Your task to perform on an android device: open device folders in google photos Image 0: 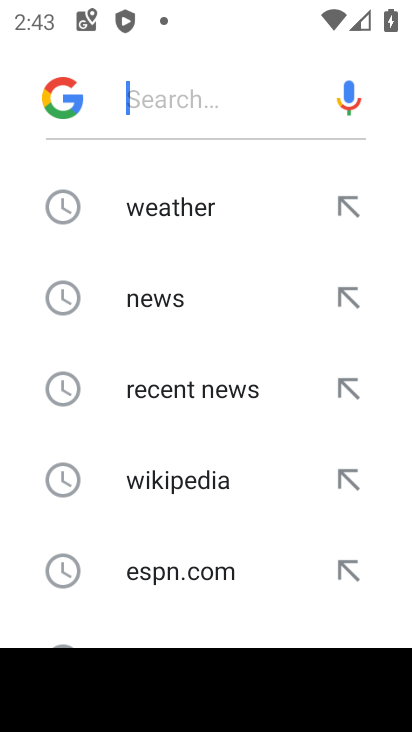
Step 0: press home button
Your task to perform on an android device: open device folders in google photos Image 1: 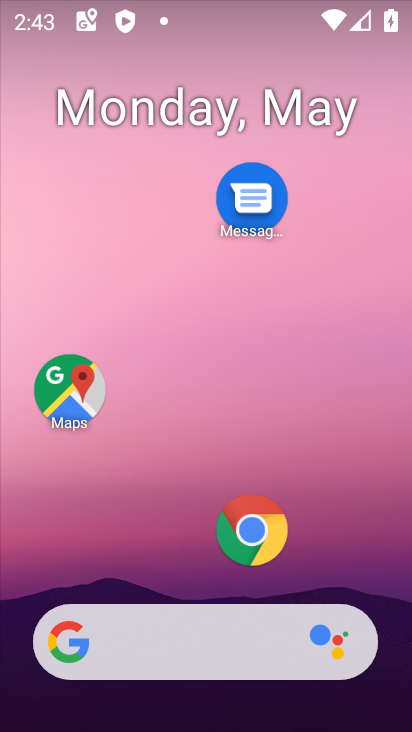
Step 1: drag from (109, 557) to (261, 47)
Your task to perform on an android device: open device folders in google photos Image 2: 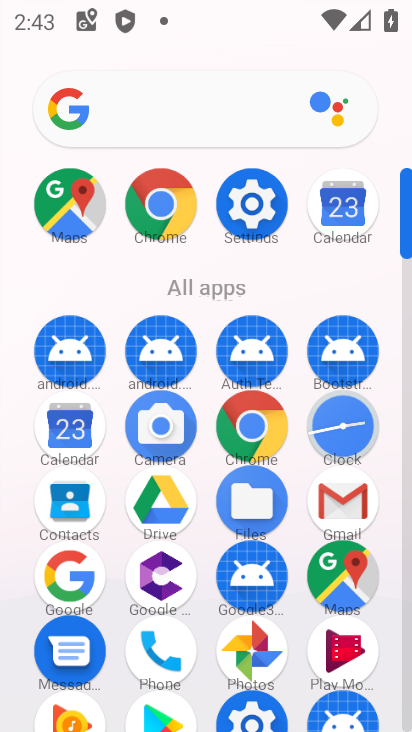
Step 2: click (242, 664)
Your task to perform on an android device: open device folders in google photos Image 3: 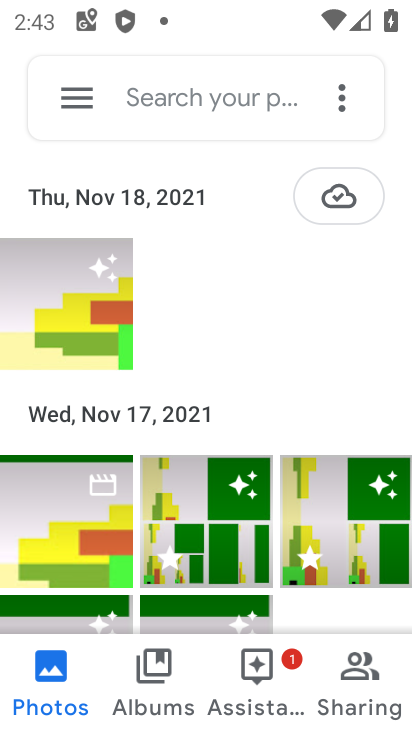
Step 3: click (84, 95)
Your task to perform on an android device: open device folders in google photos Image 4: 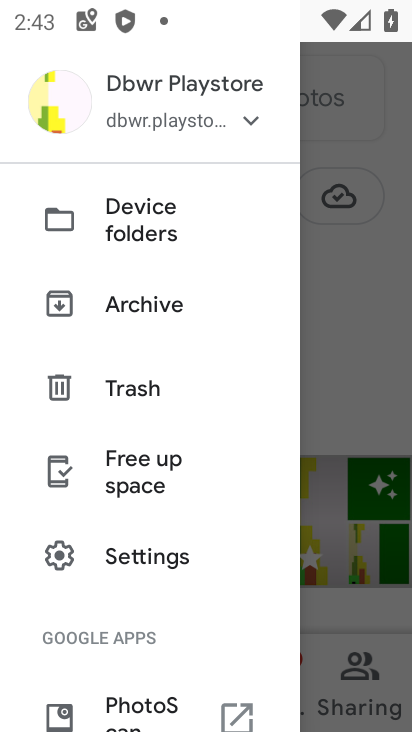
Step 4: click (138, 218)
Your task to perform on an android device: open device folders in google photos Image 5: 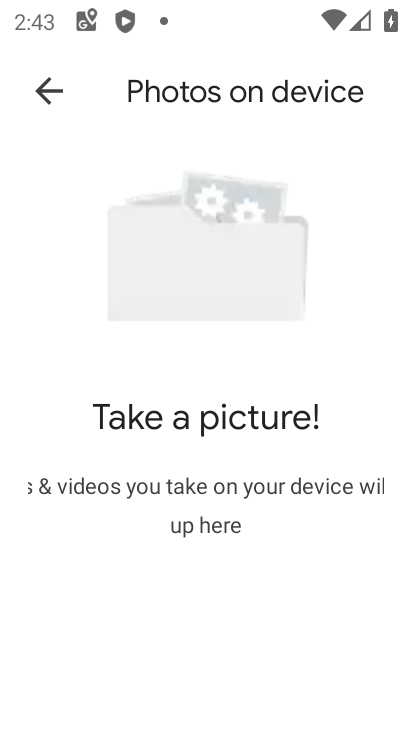
Step 5: task complete